Your task to perform on an android device: turn on location history Image 0: 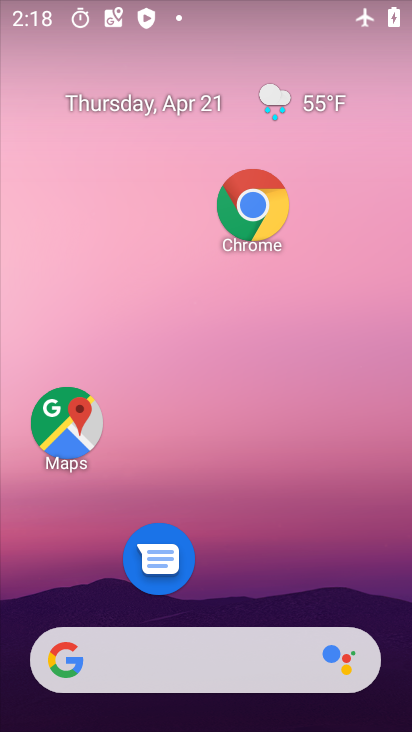
Step 0: drag from (200, 33) to (346, 51)
Your task to perform on an android device: turn on location history Image 1: 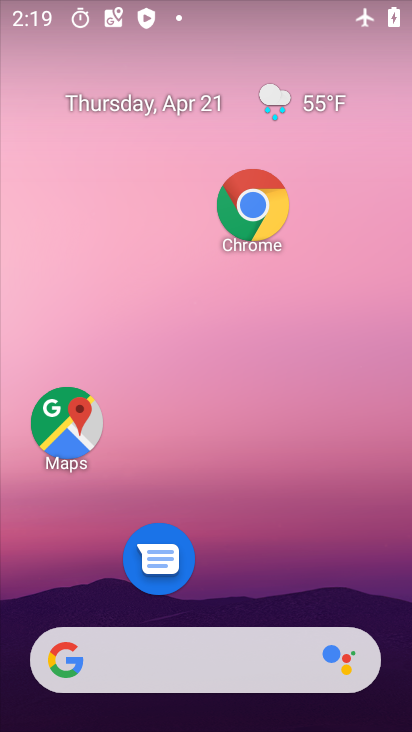
Step 1: drag from (205, 600) to (359, 422)
Your task to perform on an android device: turn on location history Image 2: 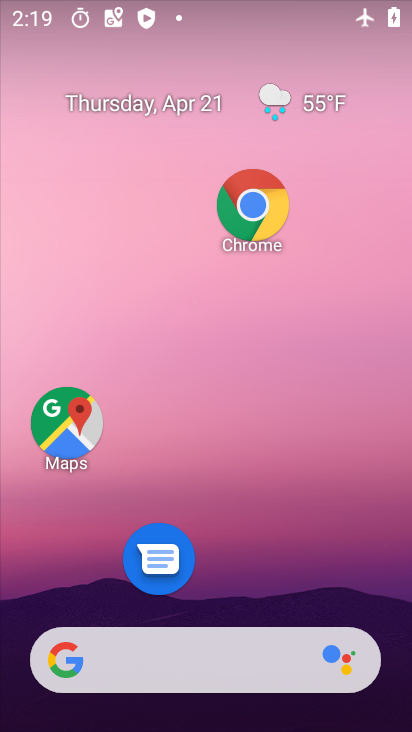
Step 2: drag from (215, 618) to (175, 6)
Your task to perform on an android device: turn on location history Image 3: 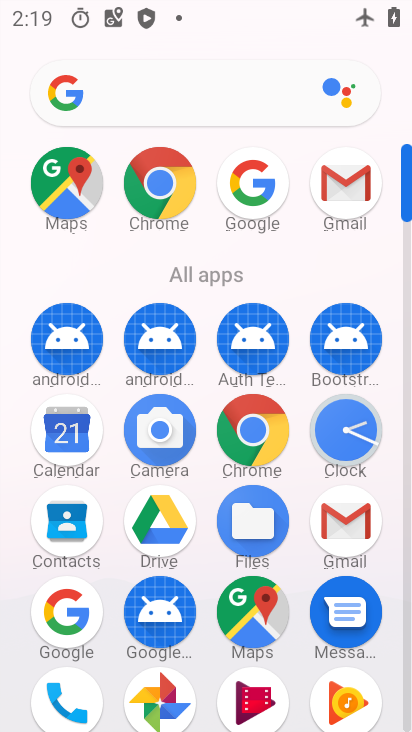
Step 3: drag from (205, 561) to (148, 63)
Your task to perform on an android device: turn on location history Image 4: 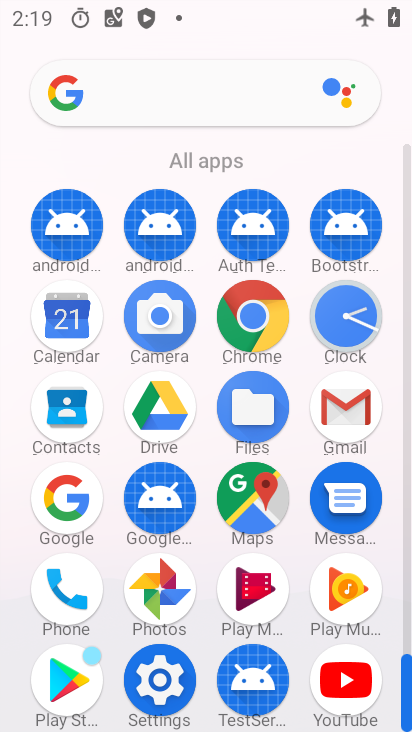
Step 4: click (172, 700)
Your task to perform on an android device: turn on location history Image 5: 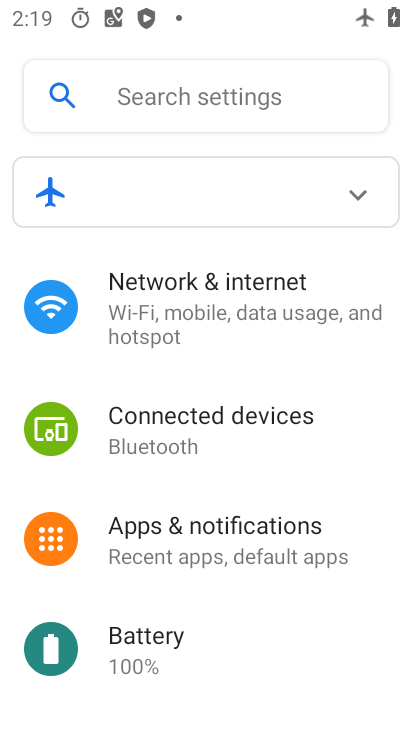
Step 5: drag from (211, 617) to (163, 115)
Your task to perform on an android device: turn on location history Image 6: 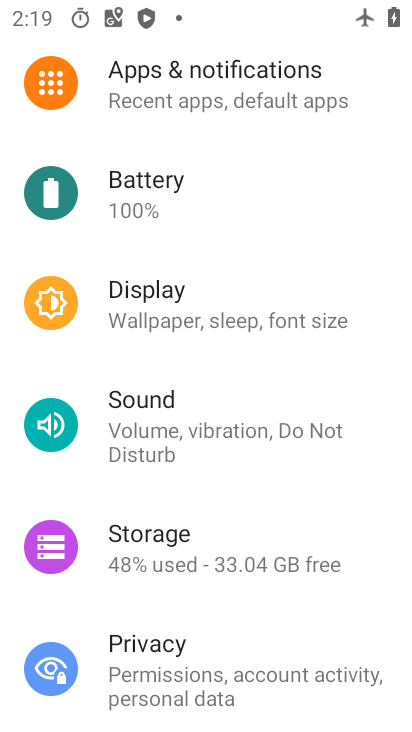
Step 6: drag from (212, 606) to (178, 179)
Your task to perform on an android device: turn on location history Image 7: 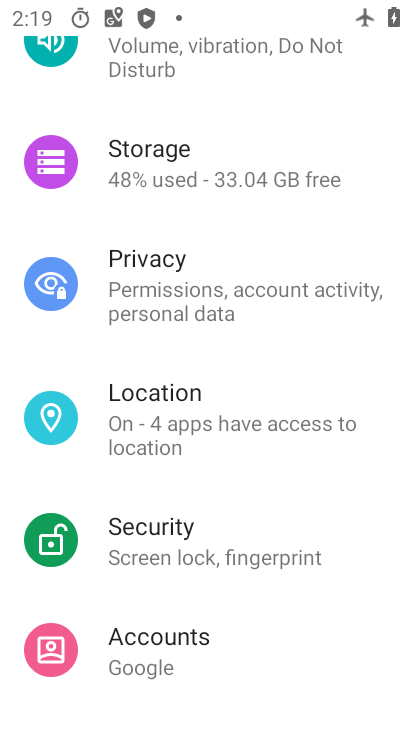
Step 7: click (172, 422)
Your task to perform on an android device: turn on location history Image 8: 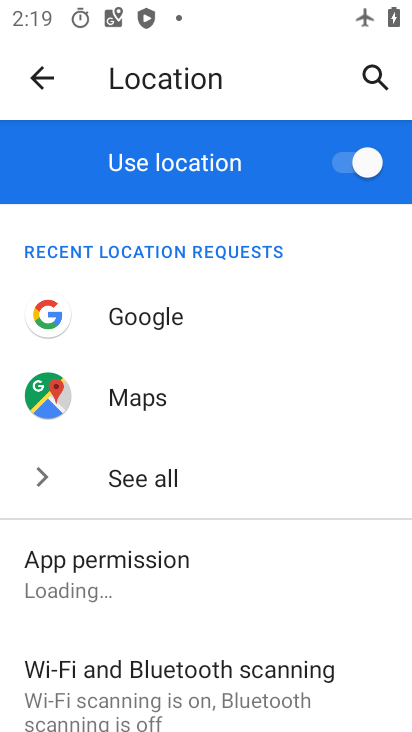
Step 8: task complete